Your task to perform on an android device: Toggle the flashlight Image 0: 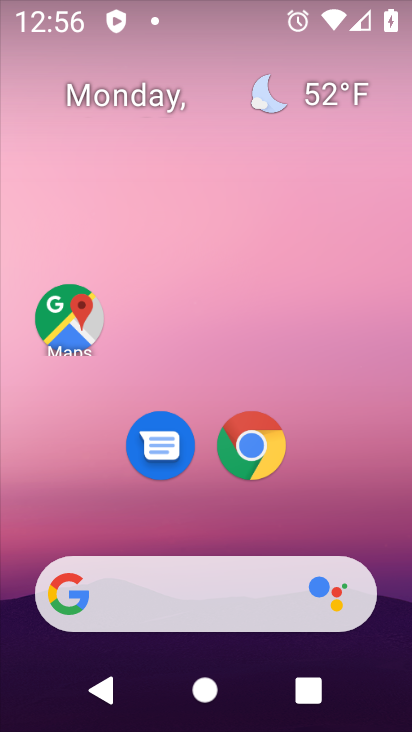
Step 0: drag from (391, 445) to (380, 111)
Your task to perform on an android device: Toggle the flashlight Image 1: 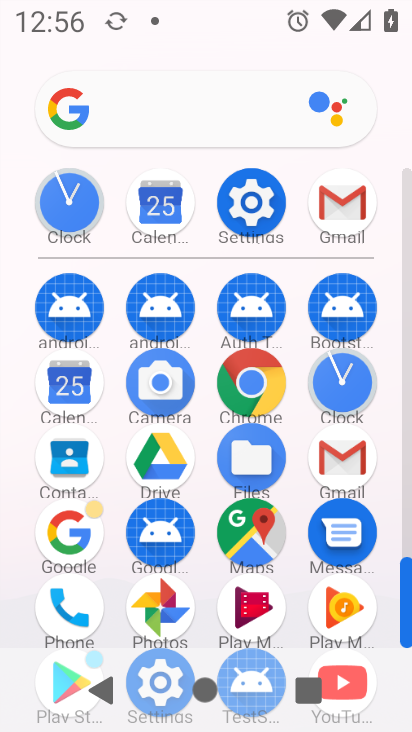
Step 1: drag from (380, 578) to (376, 207)
Your task to perform on an android device: Toggle the flashlight Image 2: 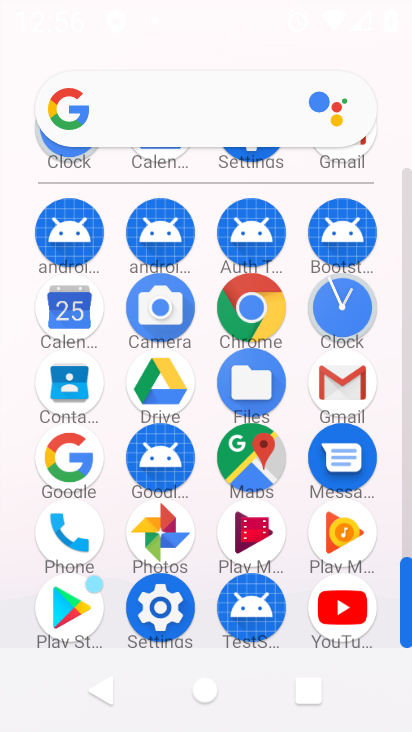
Step 2: click (164, 606)
Your task to perform on an android device: Toggle the flashlight Image 3: 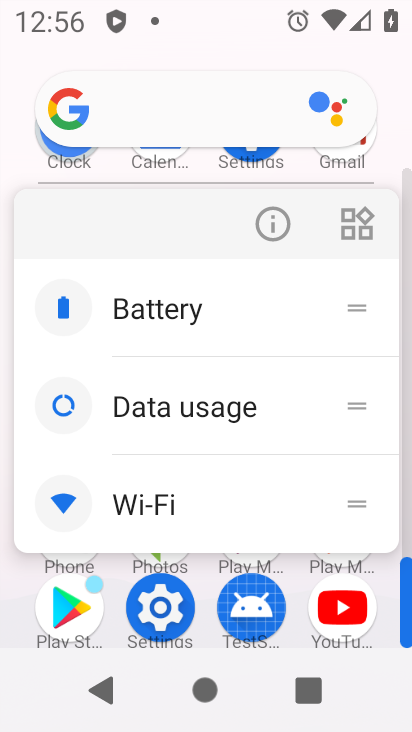
Step 3: click (166, 619)
Your task to perform on an android device: Toggle the flashlight Image 4: 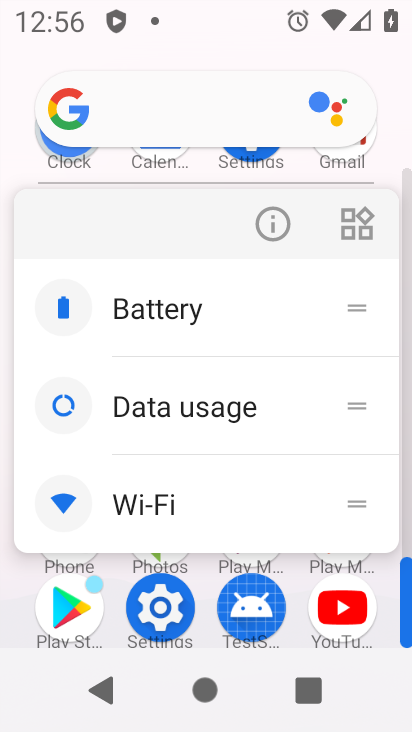
Step 4: click (166, 619)
Your task to perform on an android device: Toggle the flashlight Image 5: 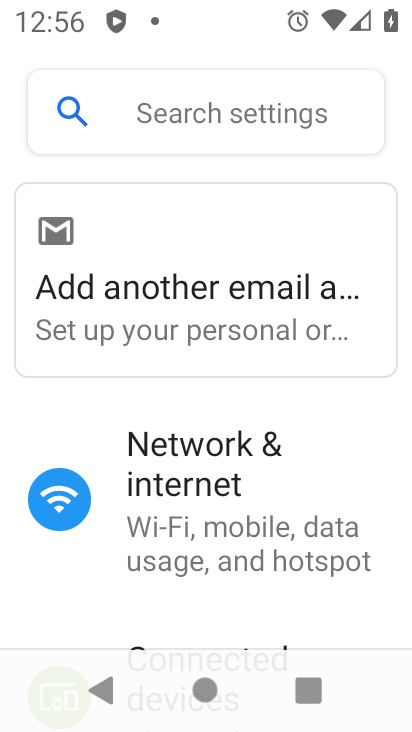
Step 5: click (220, 116)
Your task to perform on an android device: Toggle the flashlight Image 6: 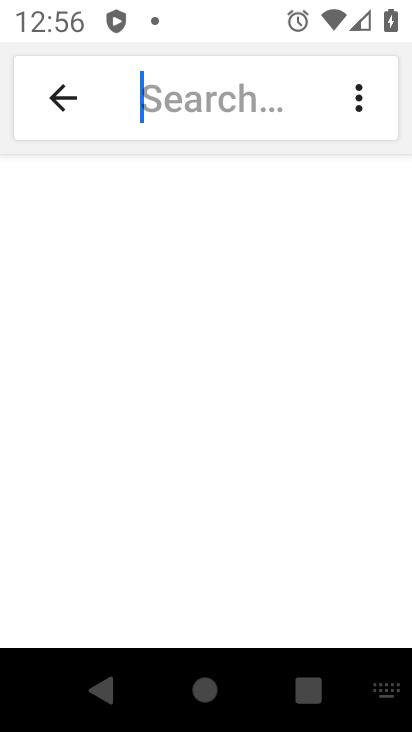
Step 6: type "flashlight"
Your task to perform on an android device: Toggle the flashlight Image 7: 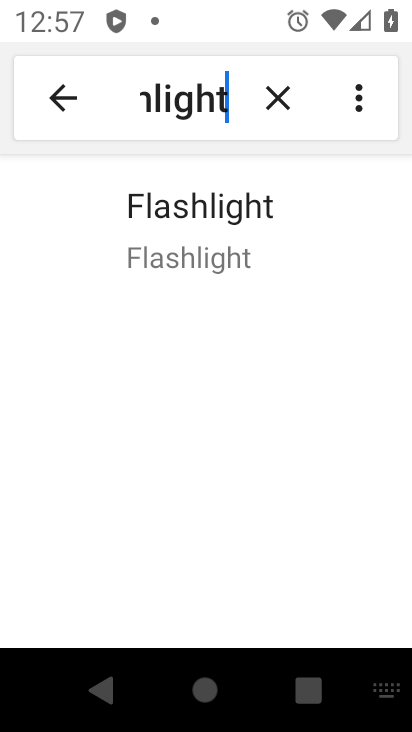
Step 7: click (216, 234)
Your task to perform on an android device: Toggle the flashlight Image 8: 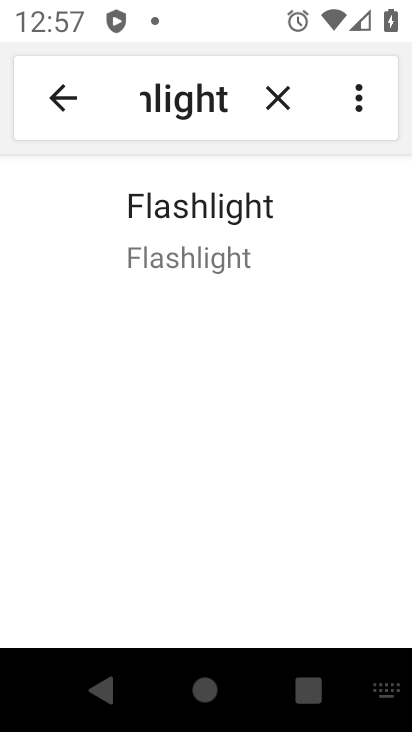
Step 8: task complete